Your task to perform on an android device: Check the weather Image 0: 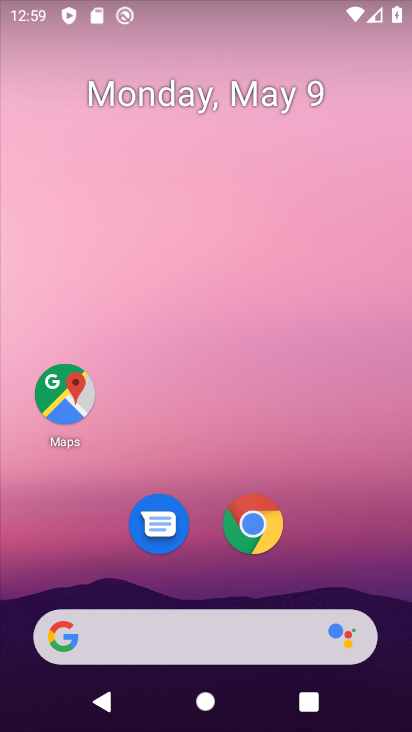
Step 0: click (232, 644)
Your task to perform on an android device: Check the weather Image 1: 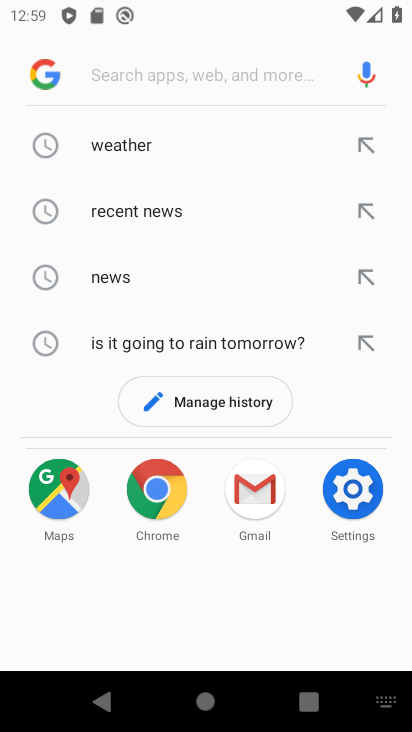
Step 1: click (104, 143)
Your task to perform on an android device: Check the weather Image 2: 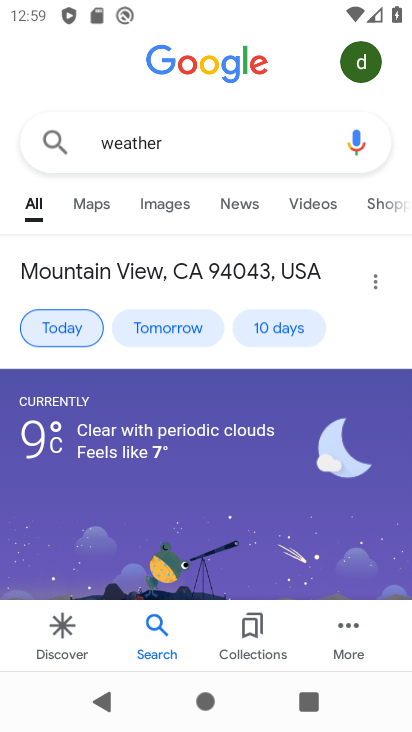
Step 2: task complete